Your task to perform on an android device: turn on notifications settings in the gmail app Image 0: 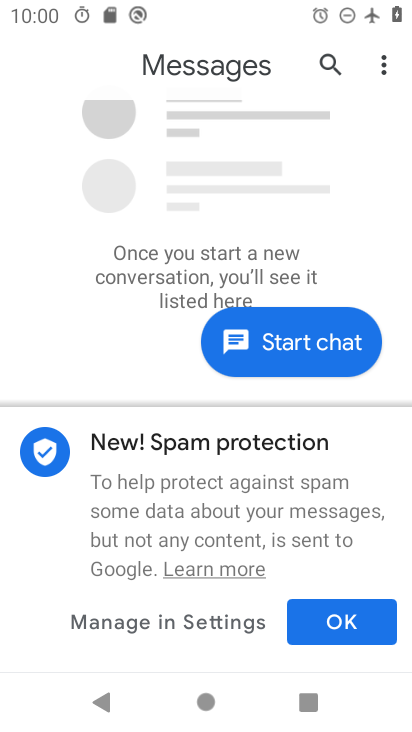
Step 0: press home button
Your task to perform on an android device: turn on notifications settings in the gmail app Image 1: 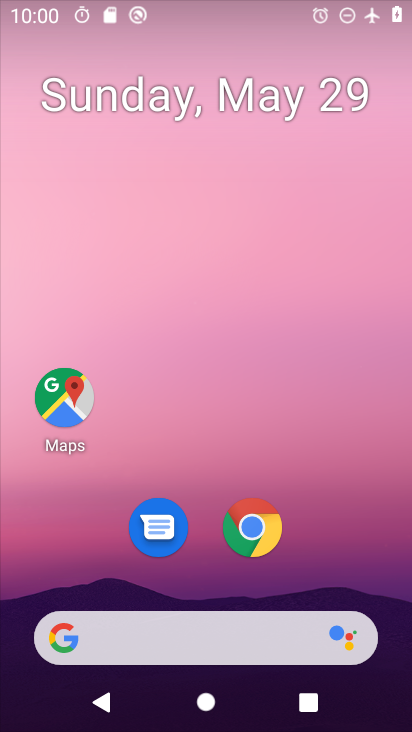
Step 1: drag from (402, 644) to (311, 49)
Your task to perform on an android device: turn on notifications settings in the gmail app Image 2: 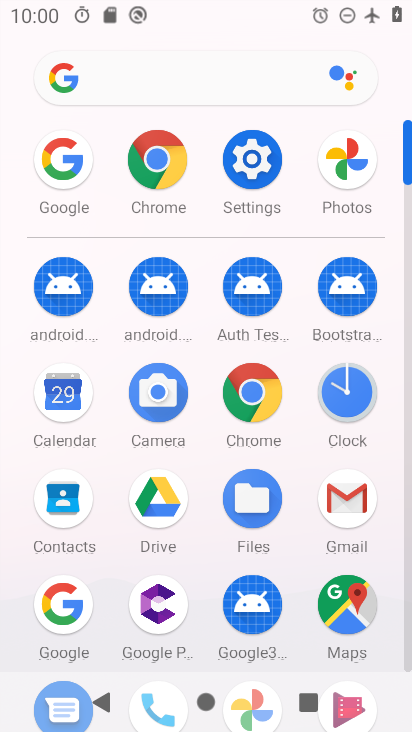
Step 2: click (346, 507)
Your task to perform on an android device: turn on notifications settings in the gmail app Image 3: 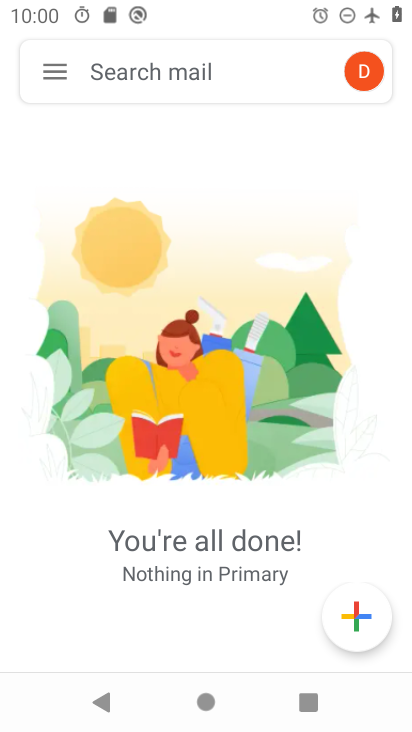
Step 3: click (53, 96)
Your task to perform on an android device: turn on notifications settings in the gmail app Image 4: 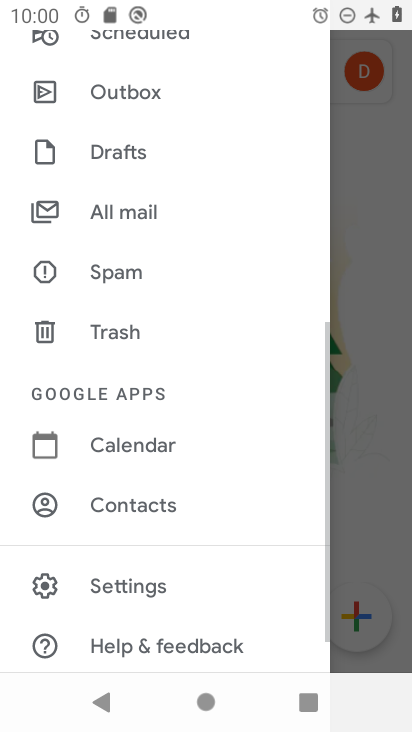
Step 4: click (144, 590)
Your task to perform on an android device: turn on notifications settings in the gmail app Image 5: 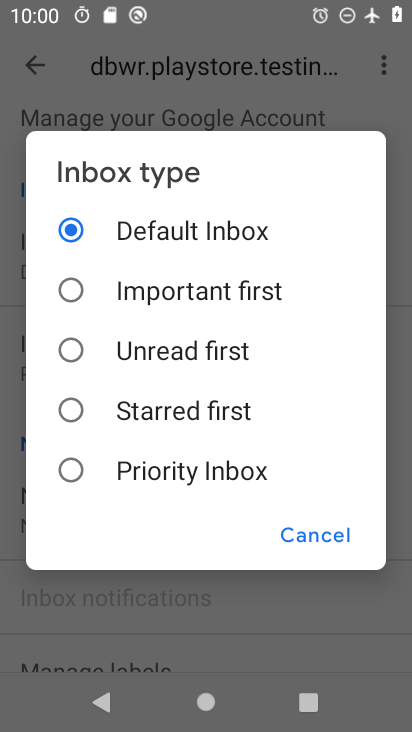
Step 5: click (335, 528)
Your task to perform on an android device: turn on notifications settings in the gmail app Image 6: 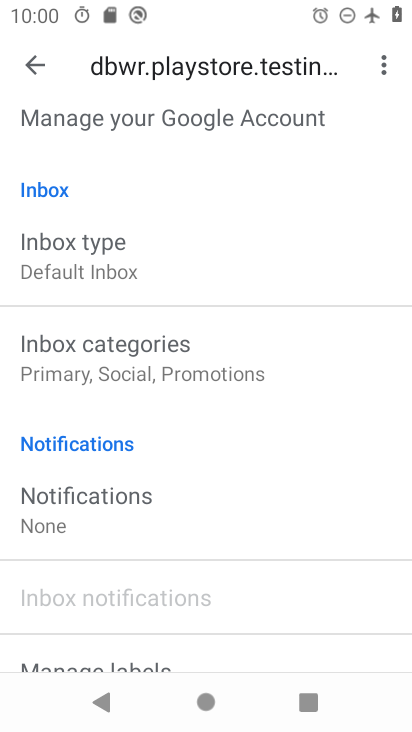
Step 6: click (89, 536)
Your task to perform on an android device: turn on notifications settings in the gmail app Image 7: 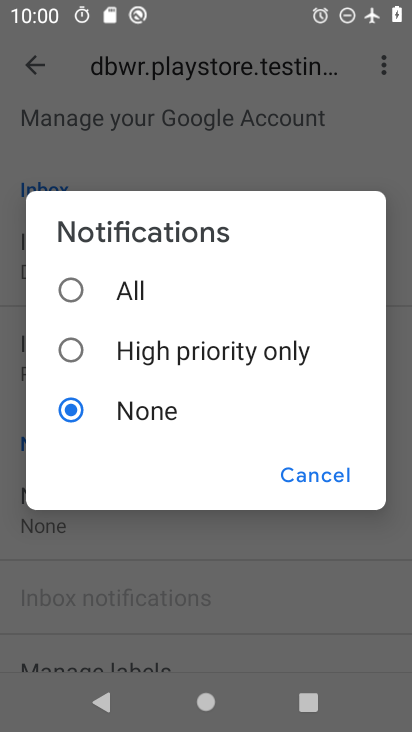
Step 7: click (82, 288)
Your task to perform on an android device: turn on notifications settings in the gmail app Image 8: 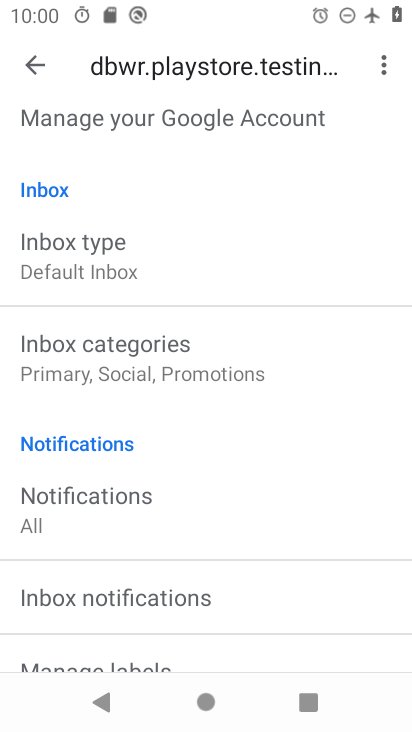
Step 8: task complete